Your task to perform on an android device: Open Google Image 0: 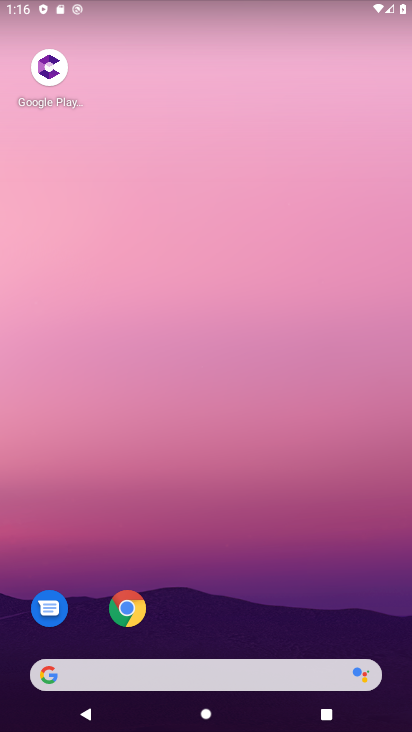
Step 0: drag from (247, 591) to (234, 31)
Your task to perform on an android device: Open Google Image 1: 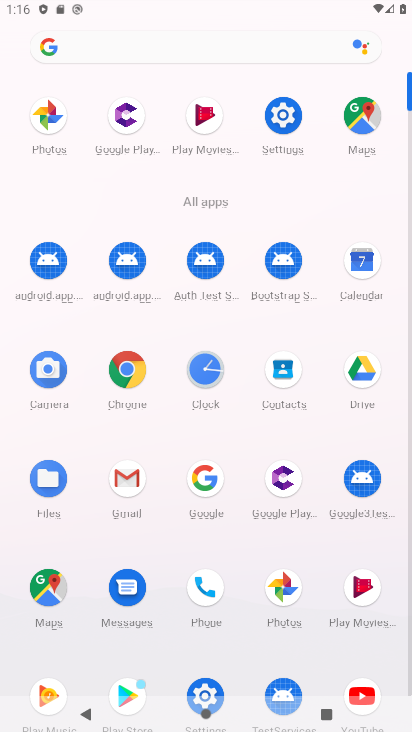
Step 1: click (196, 486)
Your task to perform on an android device: Open Google Image 2: 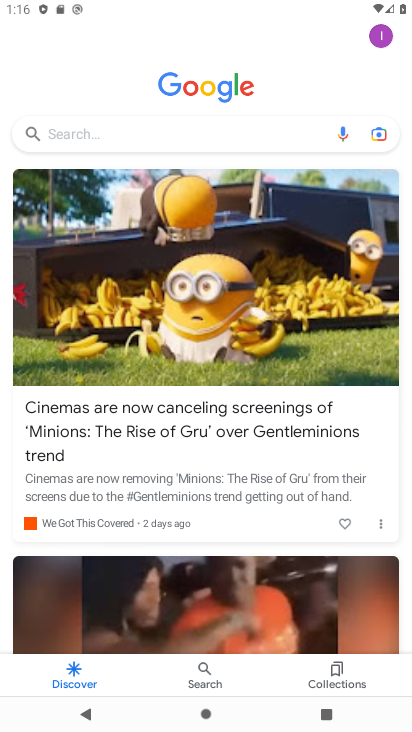
Step 2: task complete